Your task to perform on an android device: Open wifi settings Image 0: 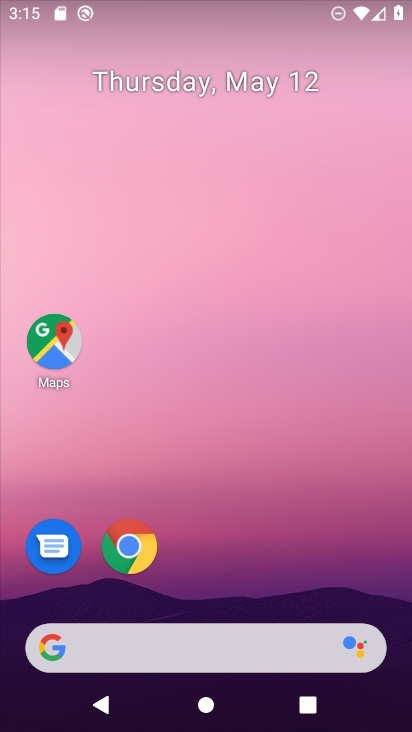
Step 0: drag from (249, 589) to (282, 205)
Your task to perform on an android device: Open wifi settings Image 1: 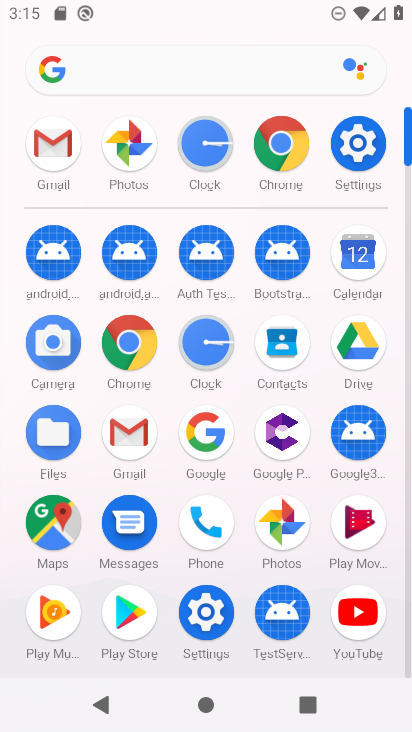
Step 1: click (347, 148)
Your task to perform on an android device: Open wifi settings Image 2: 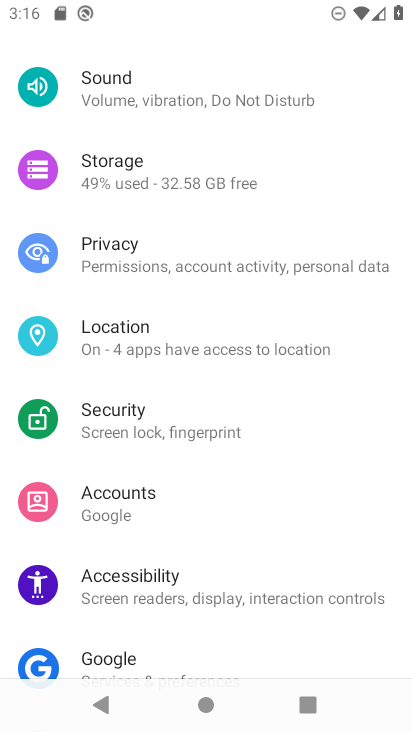
Step 2: drag from (185, 120) to (204, 542)
Your task to perform on an android device: Open wifi settings Image 3: 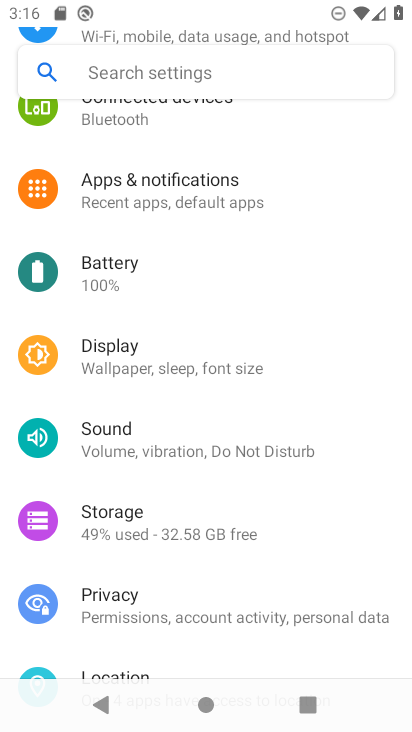
Step 3: drag from (165, 134) to (174, 512)
Your task to perform on an android device: Open wifi settings Image 4: 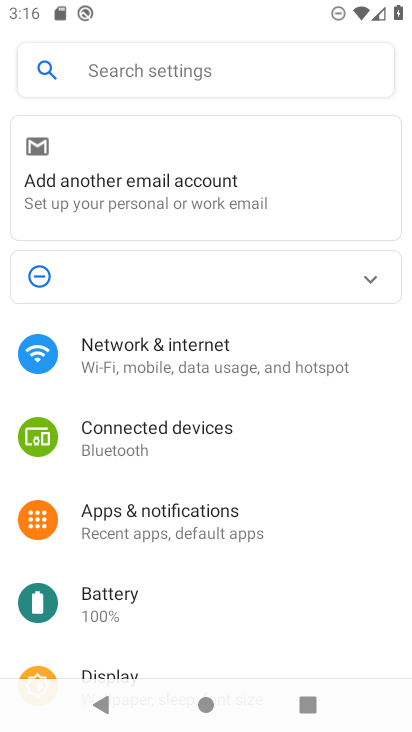
Step 4: click (168, 350)
Your task to perform on an android device: Open wifi settings Image 5: 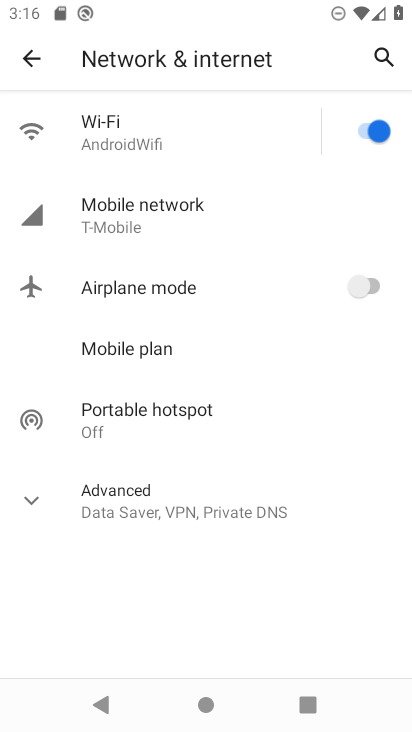
Step 5: task complete